Your task to perform on an android device: check battery use Image 0: 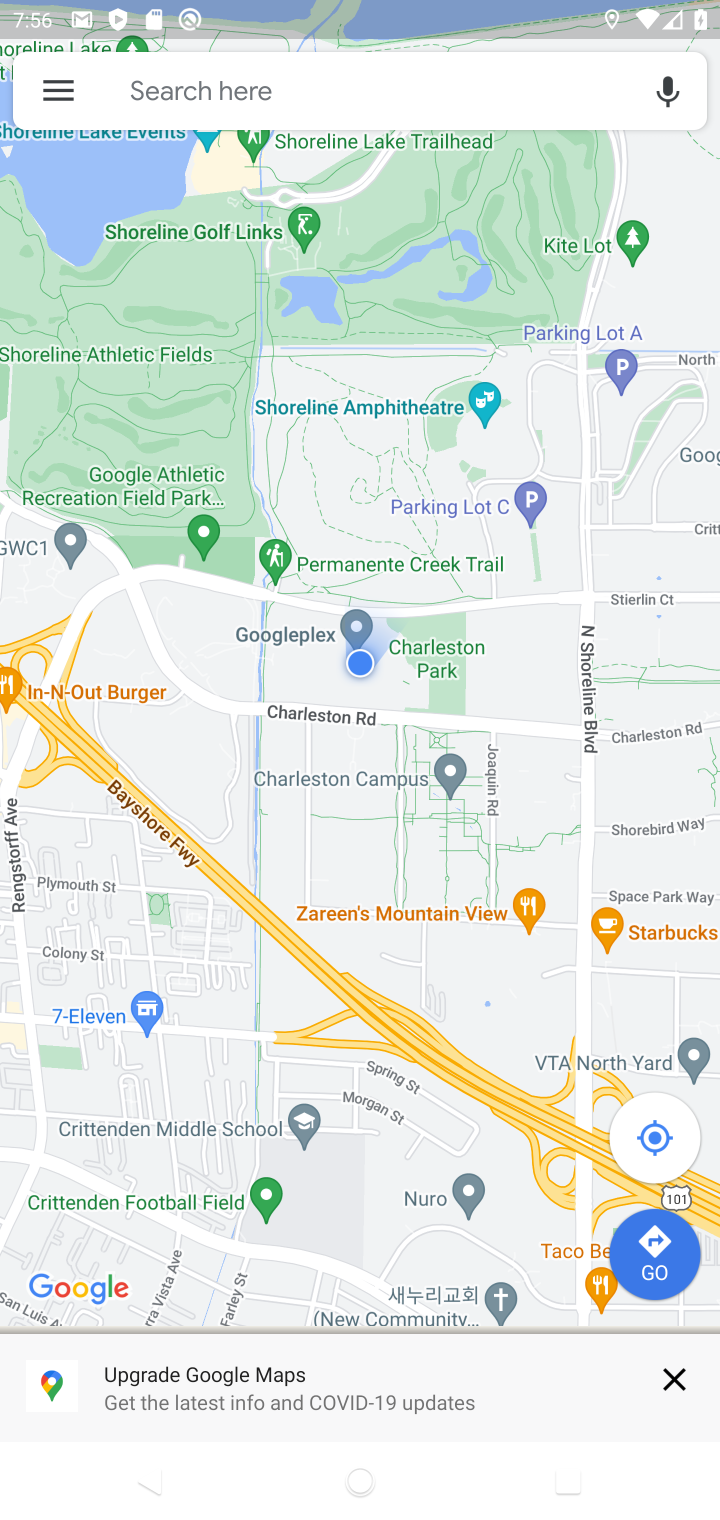
Step 0: press home button
Your task to perform on an android device: check battery use Image 1: 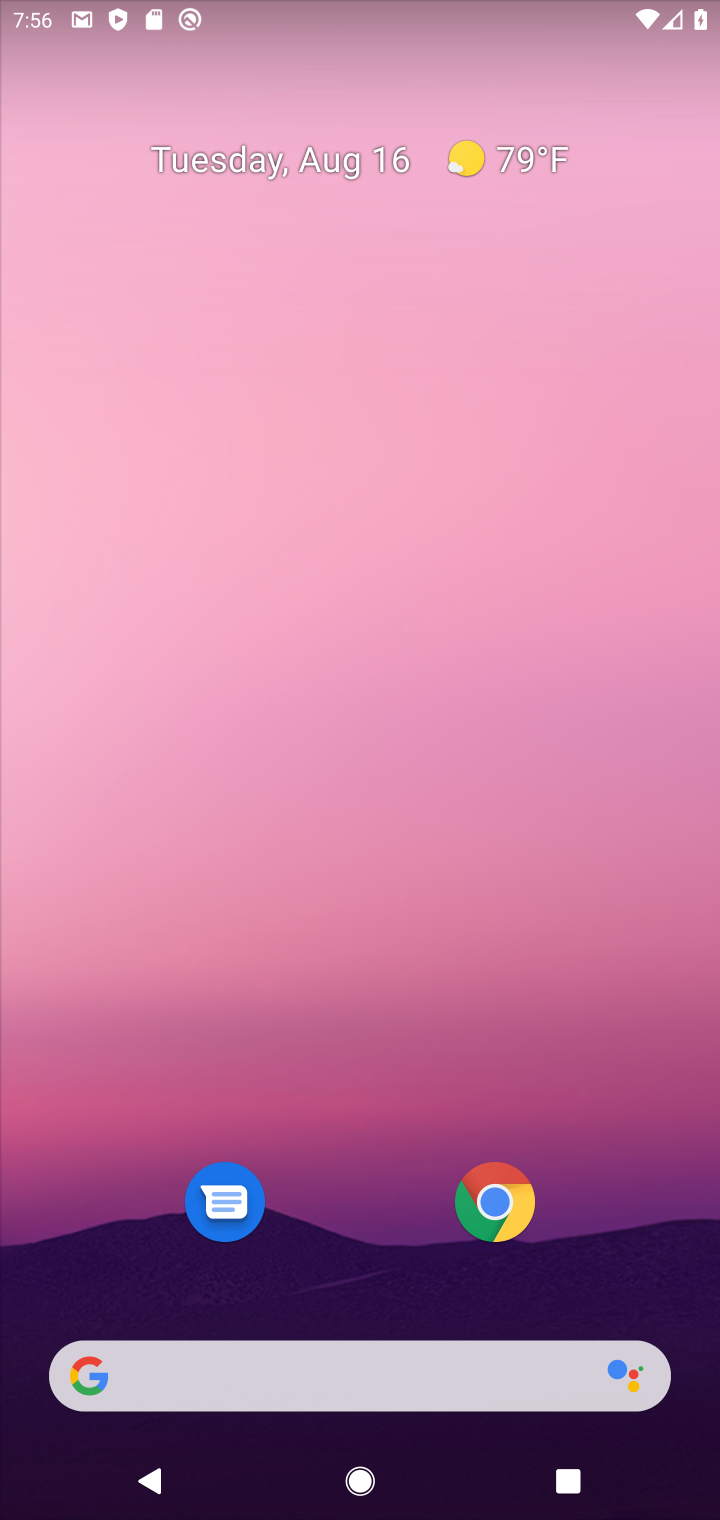
Step 1: drag from (355, 1324) to (268, 165)
Your task to perform on an android device: check battery use Image 2: 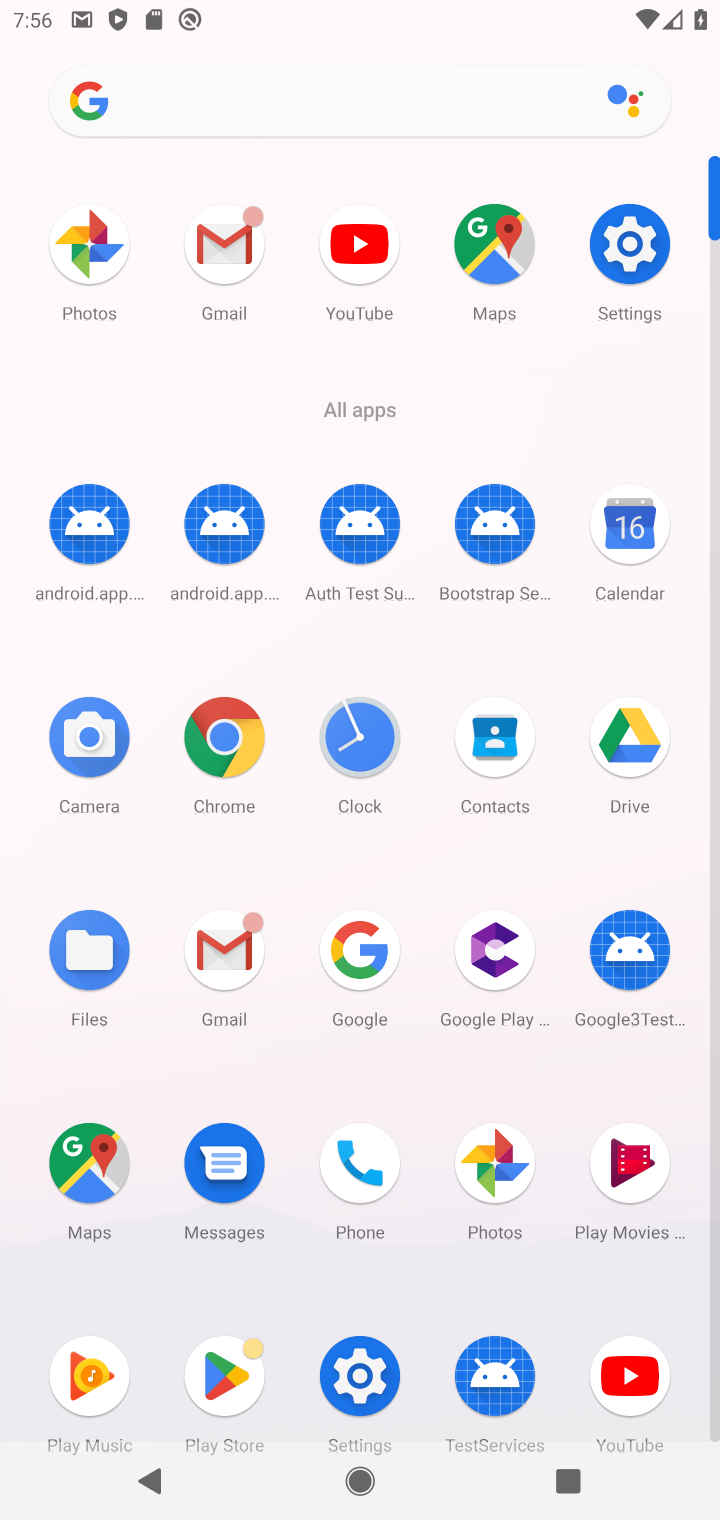
Step 2: click (629, 282)
Your task to perform on an android device: check battery use Image 3: 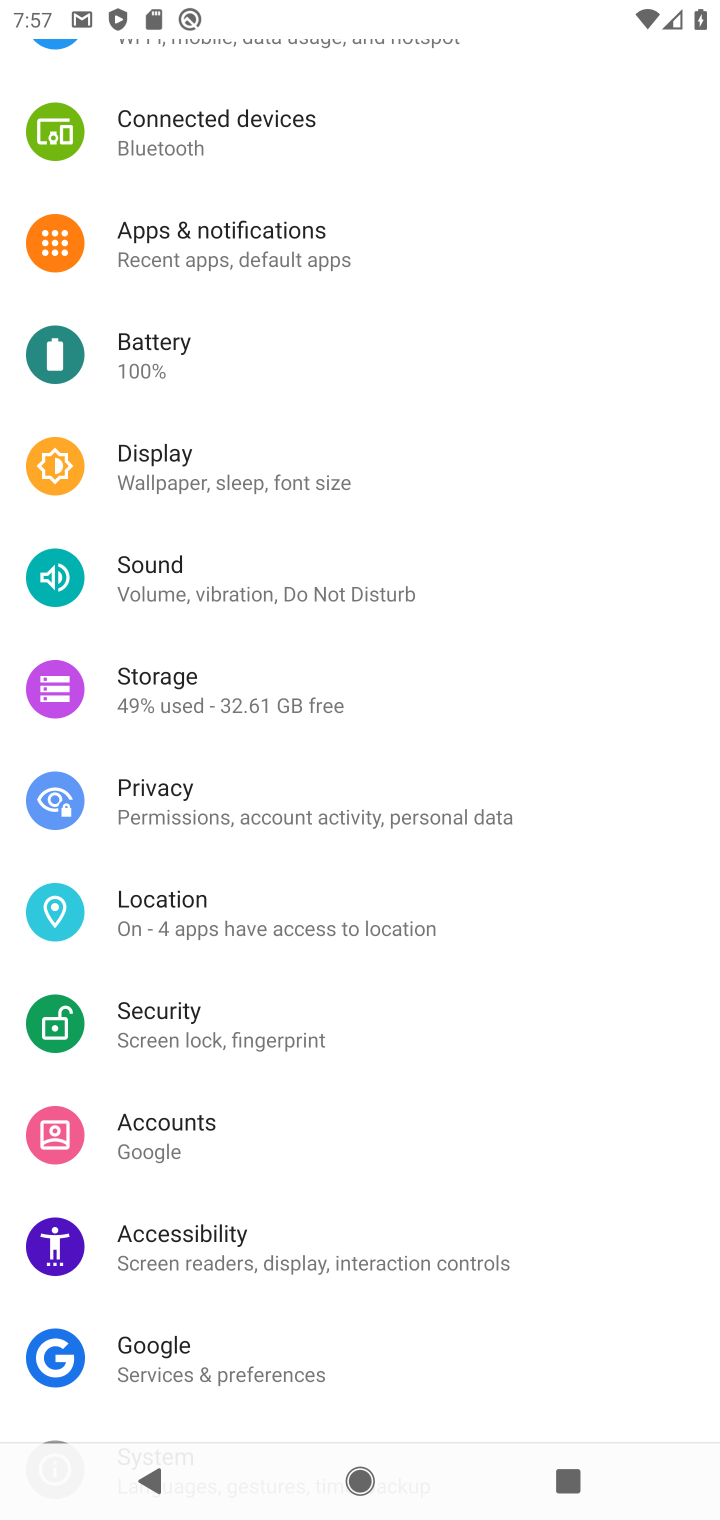
Step 3: click (309, 193)
Your task to perform on an android device: check battery use Image 4: 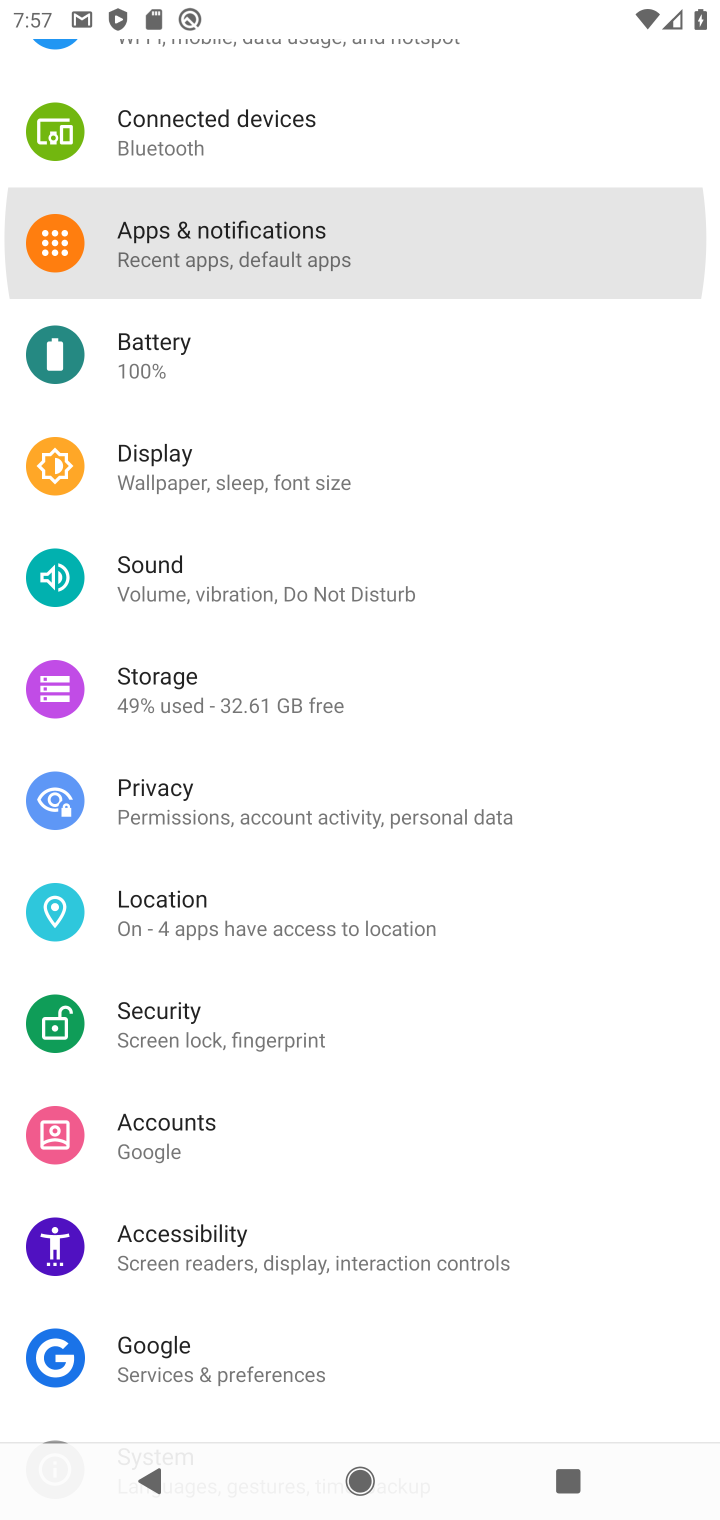
Step 4: click (337, 372)
Your task to perform on an android device: check battery use Image 5: 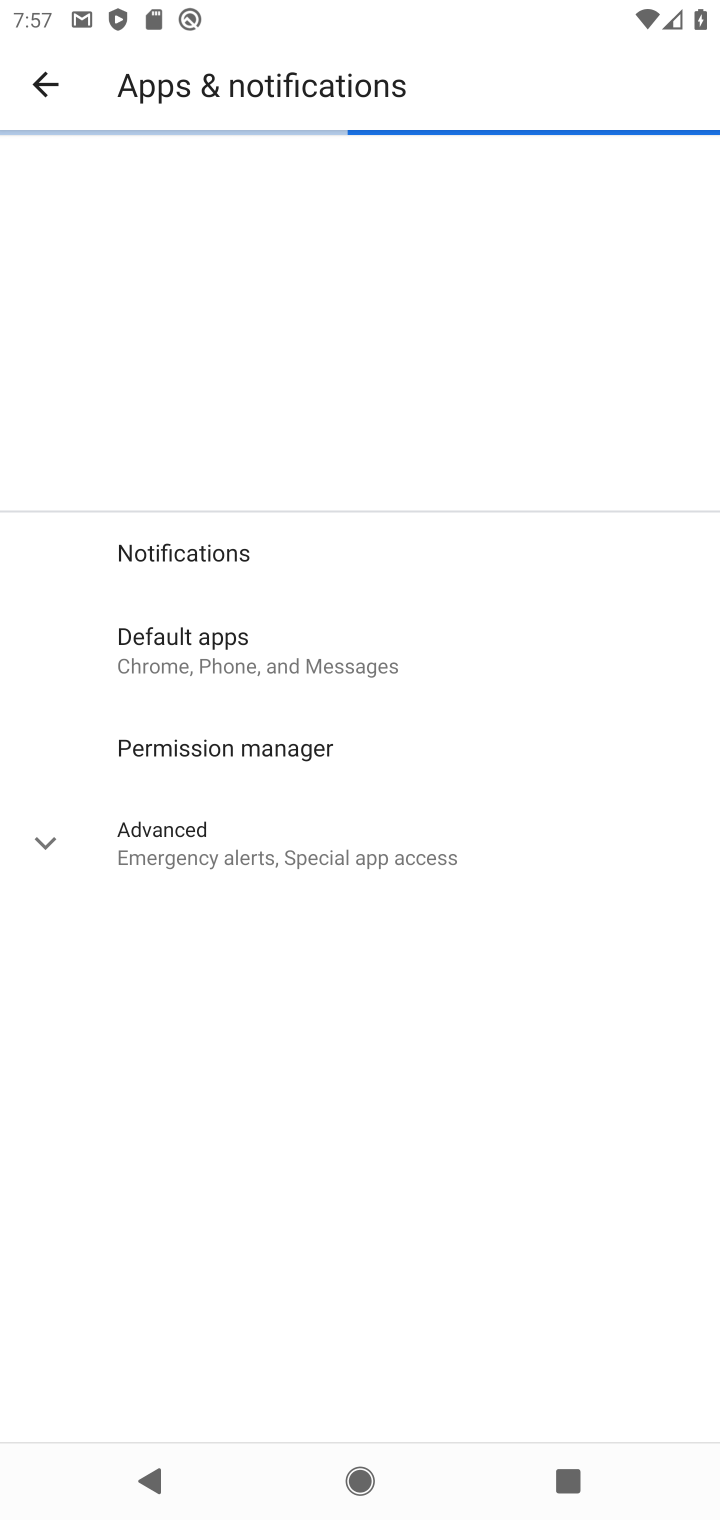
Step 5: task complete